Your task to perform on an android device: turn on javascript in the chrome app Image 0: 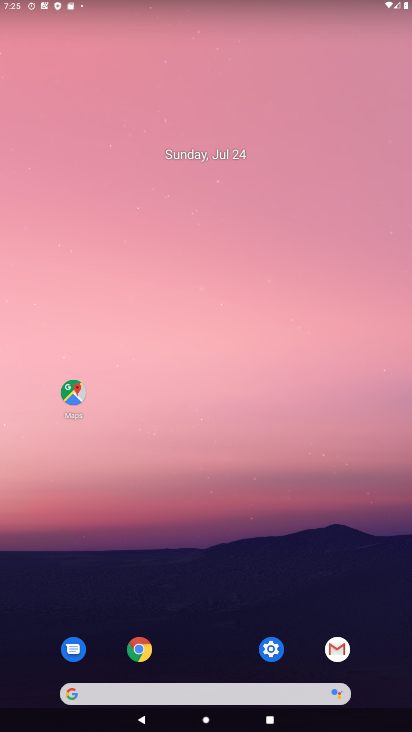
Step 0: click (155, 653)
Your task to perform on an android device: turn on javascript in the chrome app Image 1: 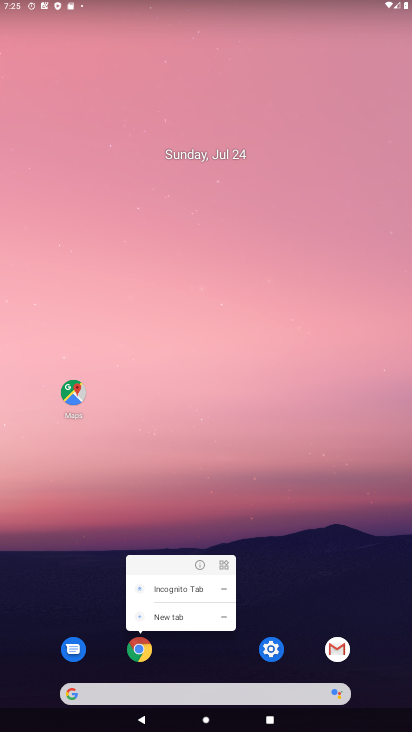
Step 1: click (145, 660)
Your task to perform on an android device: turn on javascript in the chrome app Image 2: 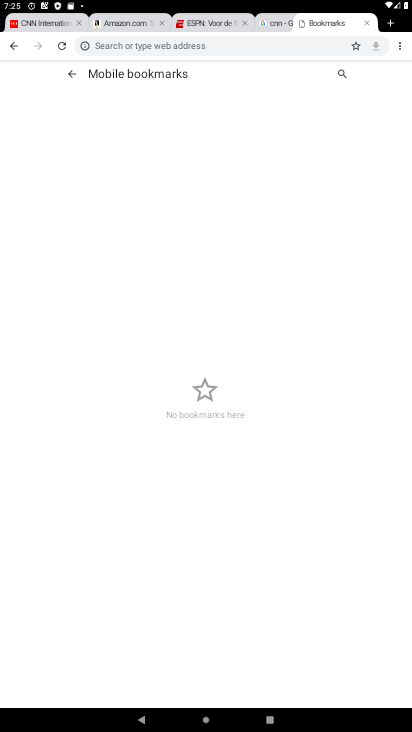
Step 2: click (402, 47)
Your task to perform on an android device: turn on javascript in the chrome app Image 3: 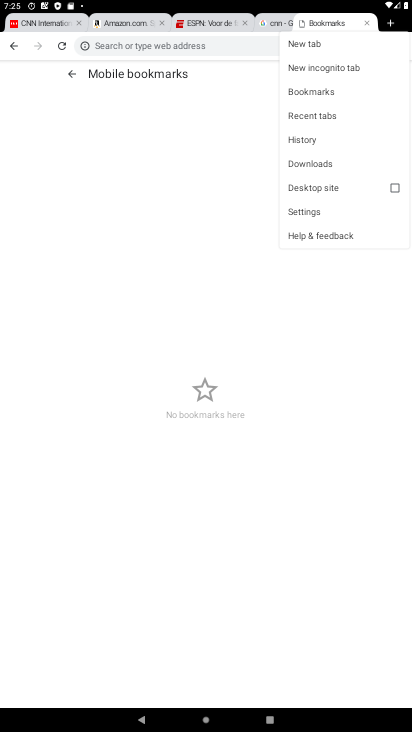
Step 3: click (329, 205)
Your task to perform on an android device: turn on javascript in the chrome app Image 4: 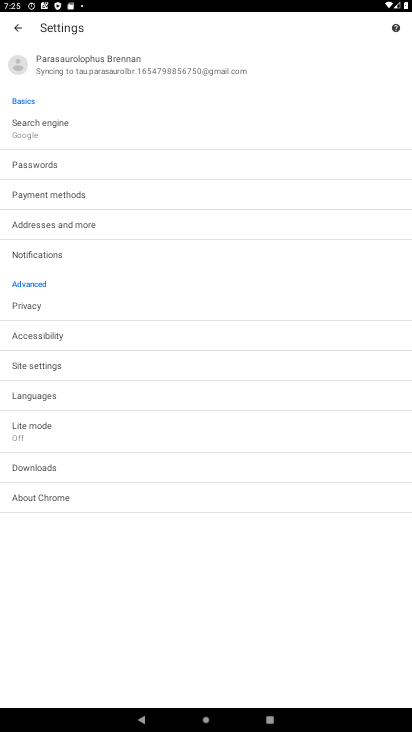
Step 4: click (46, 370)
Your task to perform on an android device: turn on javascript in the chrome app Image 5: 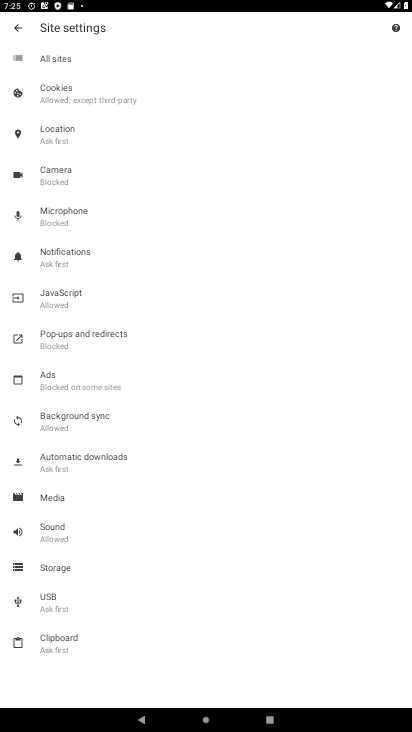
Step 5: click (107, 298)
Your task to perform on an android device: turn on javascript in the chrome app Image 6: 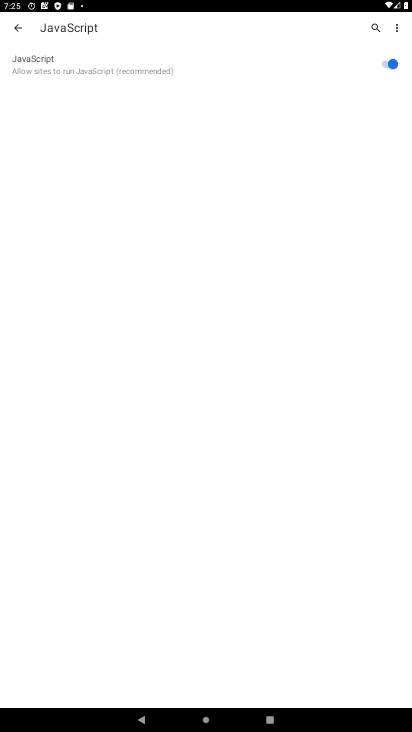
Step 6: task complete